Your task to perform on an android device: turn on data saver in the chrome app Image 0: 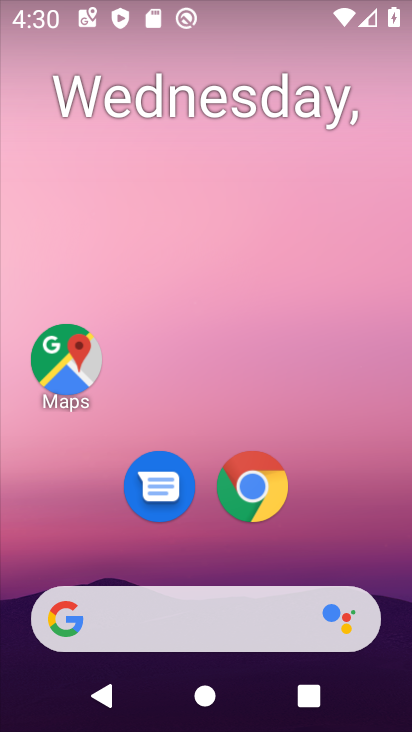
Step 0: drag from (209, 530) to (235, 156)
Your task to perform on an android device: turn on data saver in the chrome app Image 1: 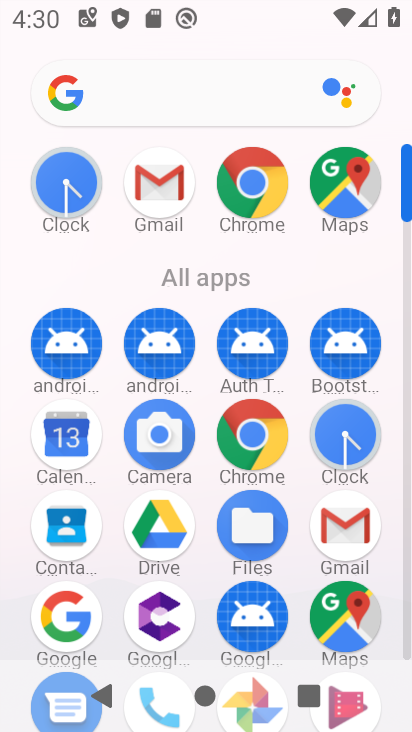
Step 1: click (273, 463)
Your task to perform on an android device: turn on data saver in the chrome app Image 2: 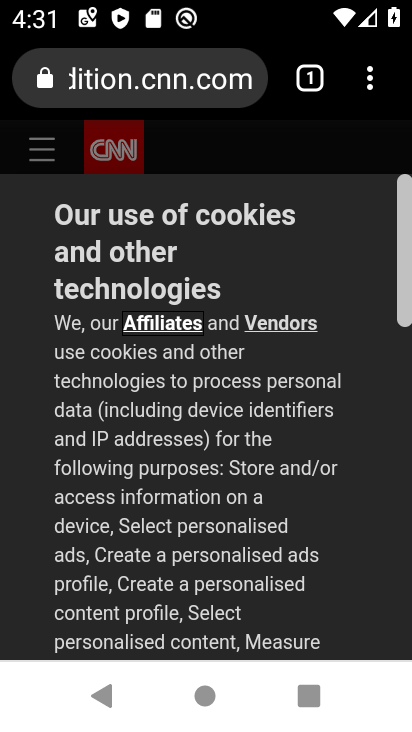
Step 2: click (376, 87)
Your task to perform on an android device: turn on data saver in the chrome app Image 3: 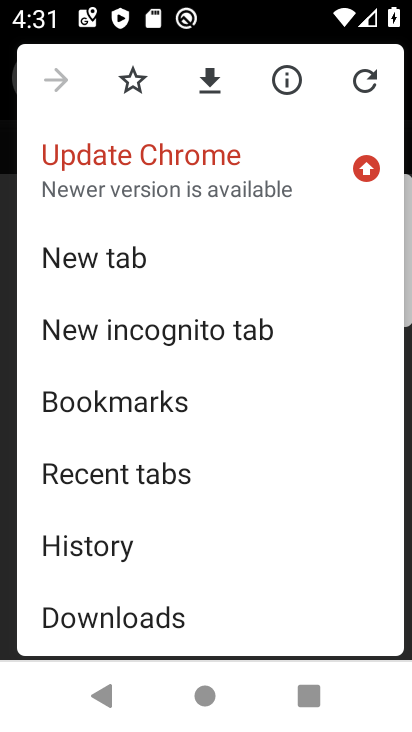
Step 3: drag from (143, 532) to (132, 165)
Your task to perform on an android device: turn on data saver in the chrome app Image 4: 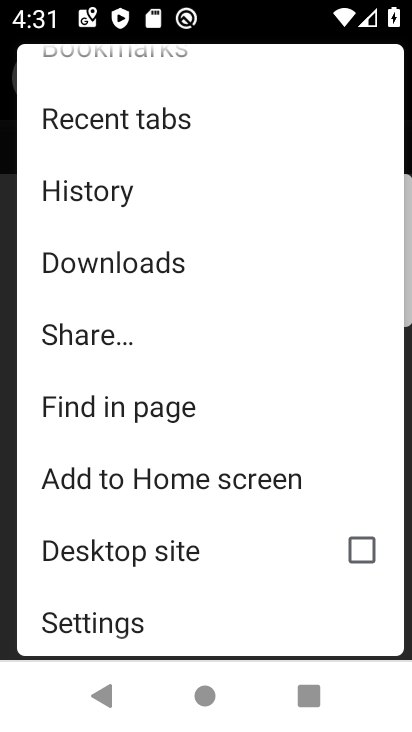
Step 4: click (120, 620)
Your task to perform on an android device: turn on data saver in the chrome app Image 5: 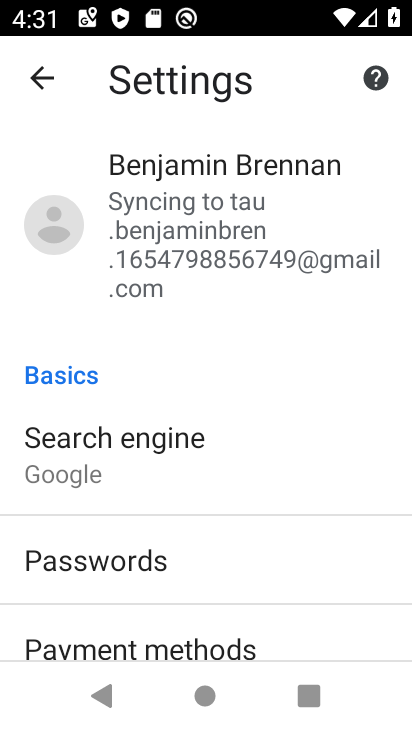
Step 5: drag from (246, 524) to (227, 85)
Your task to perform on an android device: turn on data saver in the chrome app Image 6: 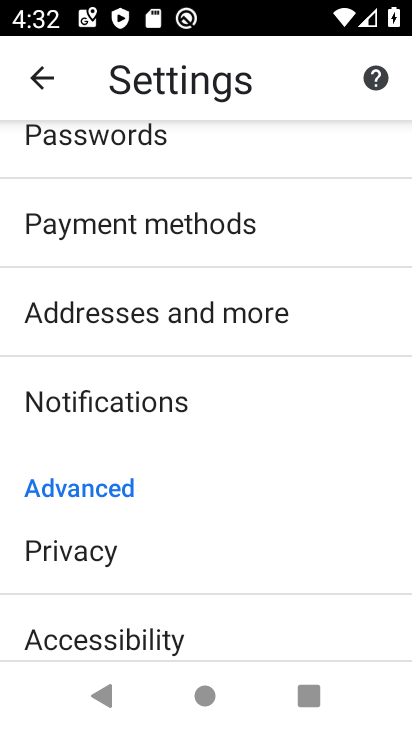
Step 6: drag from (130, 590) to (170, 103)
Your task to perform on an android device: turn on data saver in the chrome app Image 7: 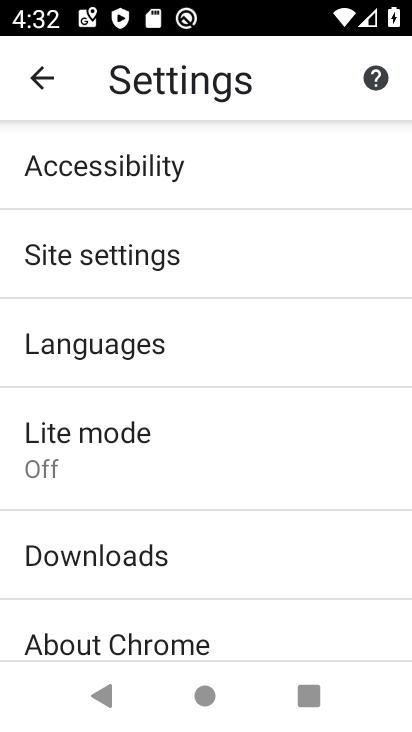
Step 7: click (150, 476)
Your task to perform on an android device: turn on data saver in the chrome app Image 8: 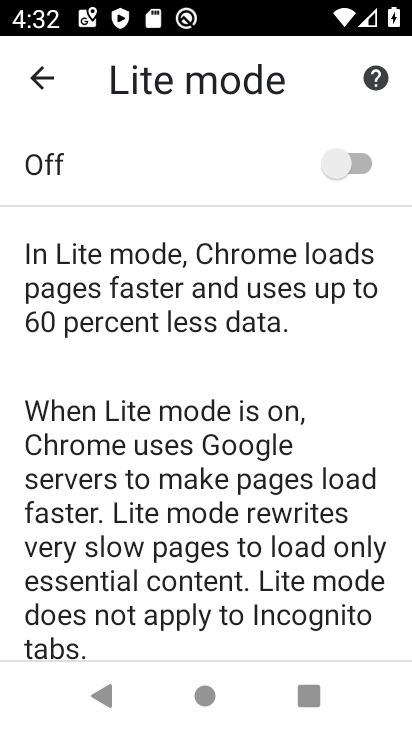
Step 8: click (356, 167)
Your task to perform on an android device: turn on data saver in the chrome app Image 9: 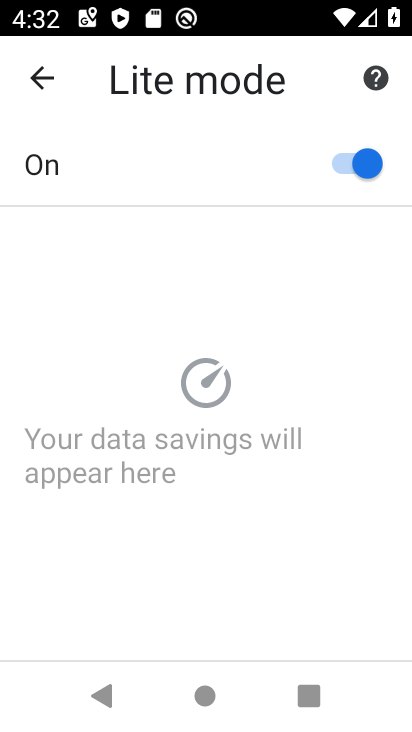
Step 9: task complete